Your task to perform on an android device: Go to sound settings Image 0: 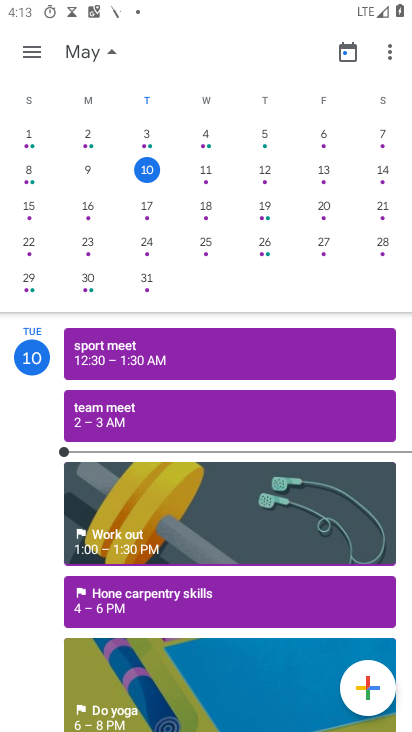
Step 0: press home button
Your task to perform on an android device: Go to sound settings Image 1: 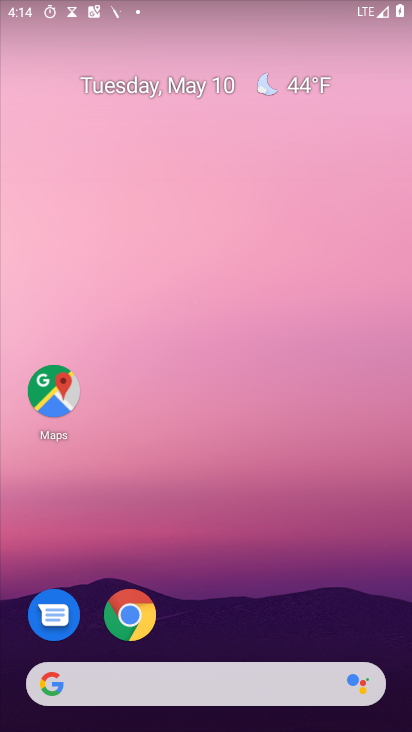
Step 1: drag from (216, 691) to (221, 160)
Your task to perform on an android device: Go to sound settings Image 2: 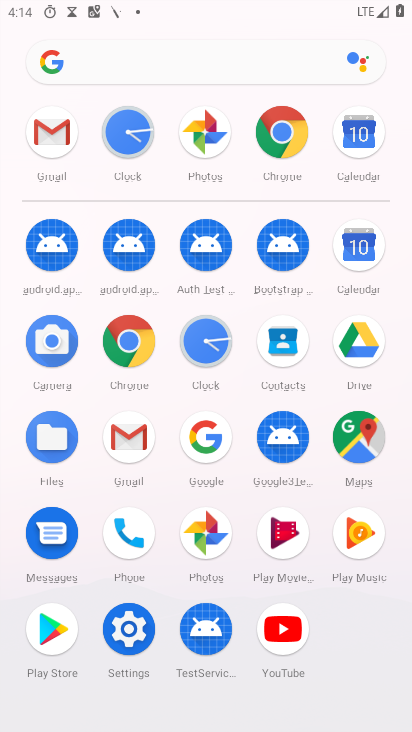
Step 2: click (140, 633)
Your task to perform on an android device: Go to sound settings Image 3: 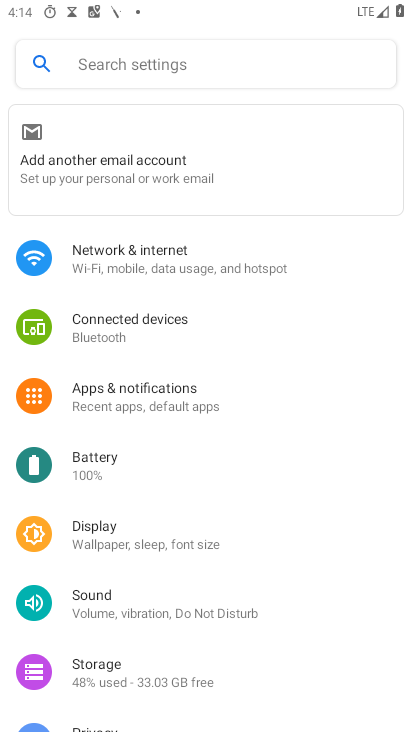
Step 3: click (127, 600)
Your task to perform on an android device: Go to sound settings Image 4: 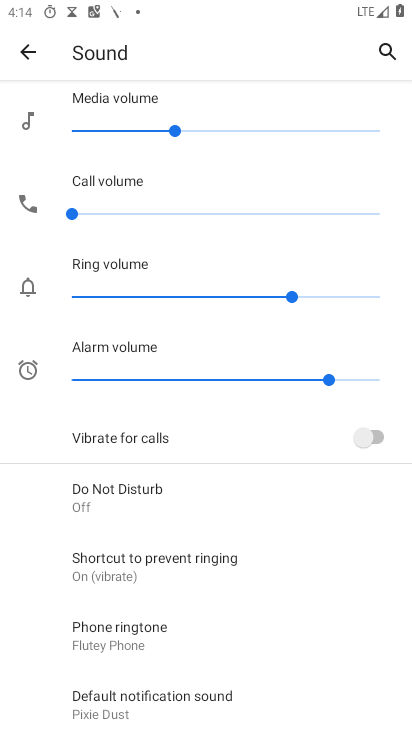
Step 4: task complete